Your task to perform on an android device: Open wifi settings Image 0: 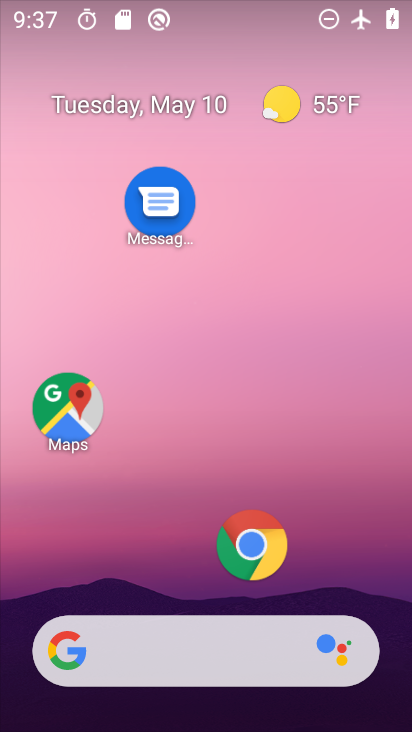
Step 0: drag from (138, 565) to (213, 260)
Your task to perform on an android device: Open wifi settings Image 1: 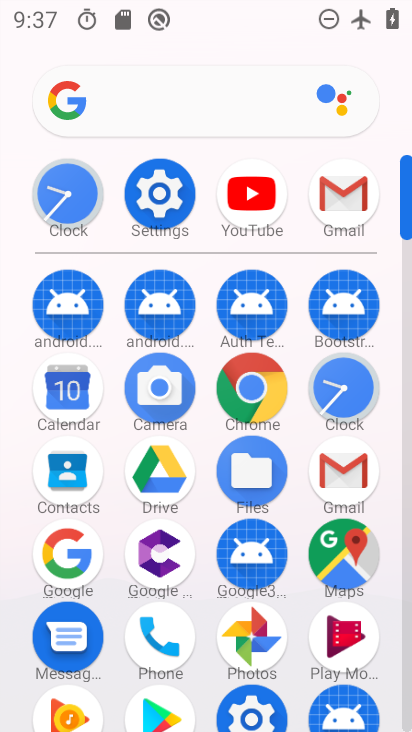
Step 1: click (159, 204)
Your task to perform on an android device: Open wifi settings Image 2: 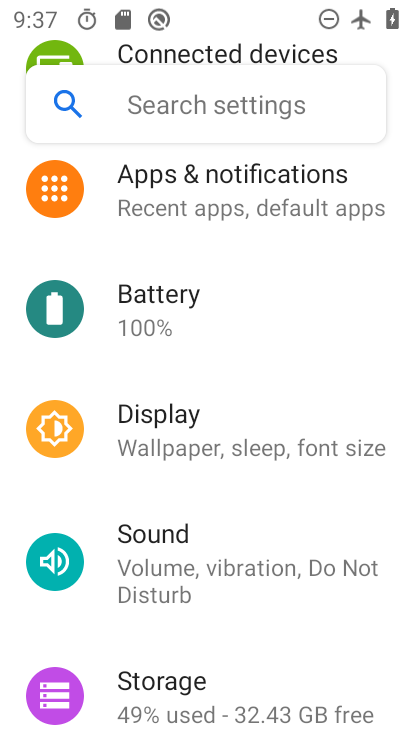
Step 2: drag from (235, 248) to (242, 585)
Your task to perform on an android device: Open wifi settings Image 3: 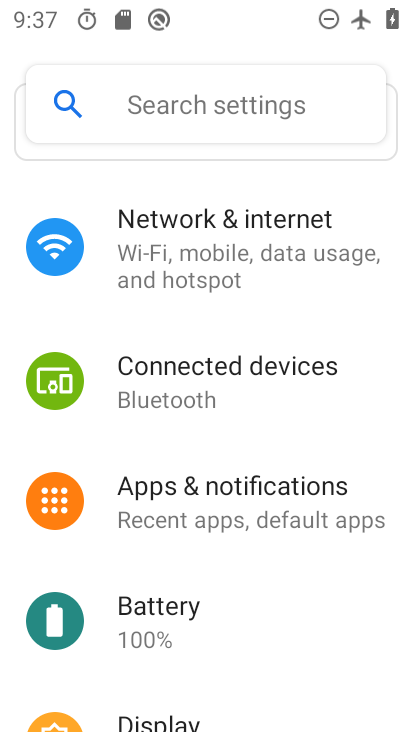
Step 3: click (190, 251)
Your task to perform on an android device: Open wifi settings Image 4: 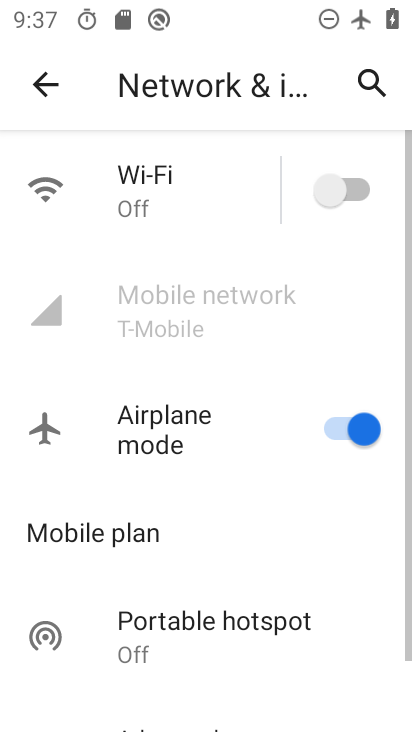
Step 4: click (177, 202)
Your task to perform on an android device: Open wifi settings Image 5: 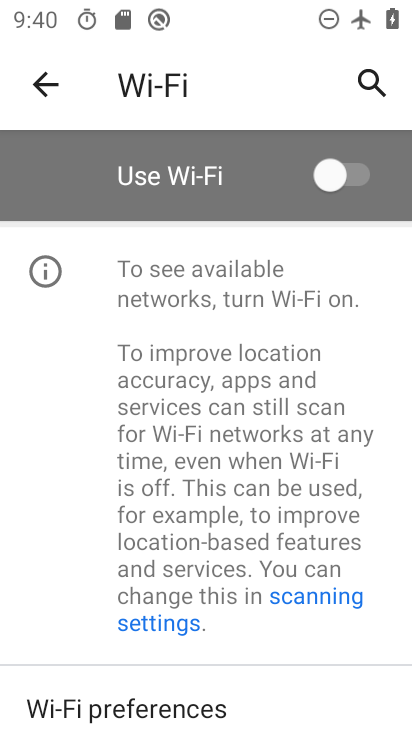
Step 5: task complete